Your task to perform on an android device: What's the weather going to be this weekend? Image 0: 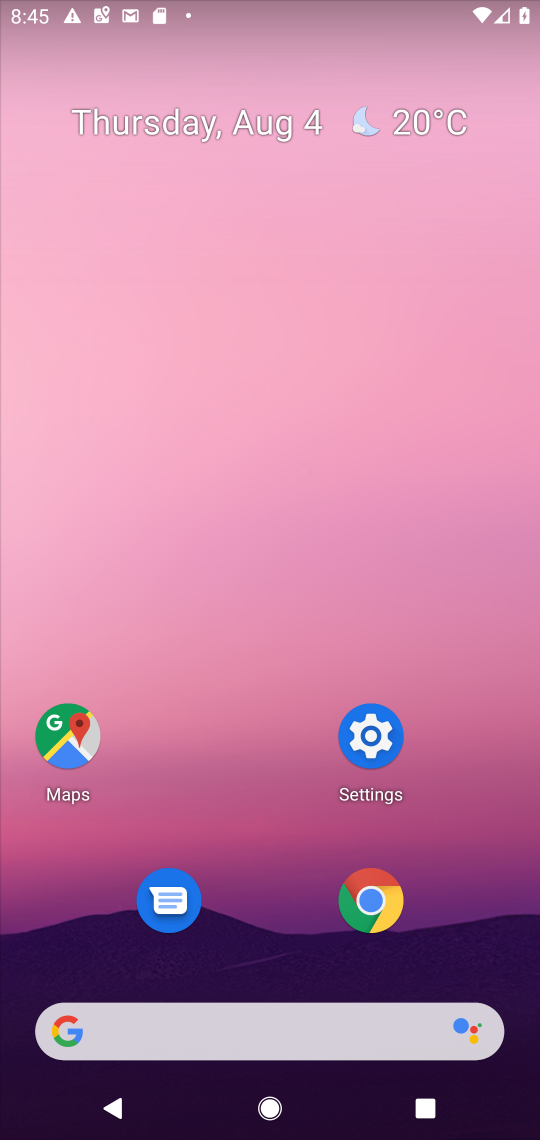
Step 0: press home button
Your task to perform on an android device: What's the weather going to be this weekend? Image 1: 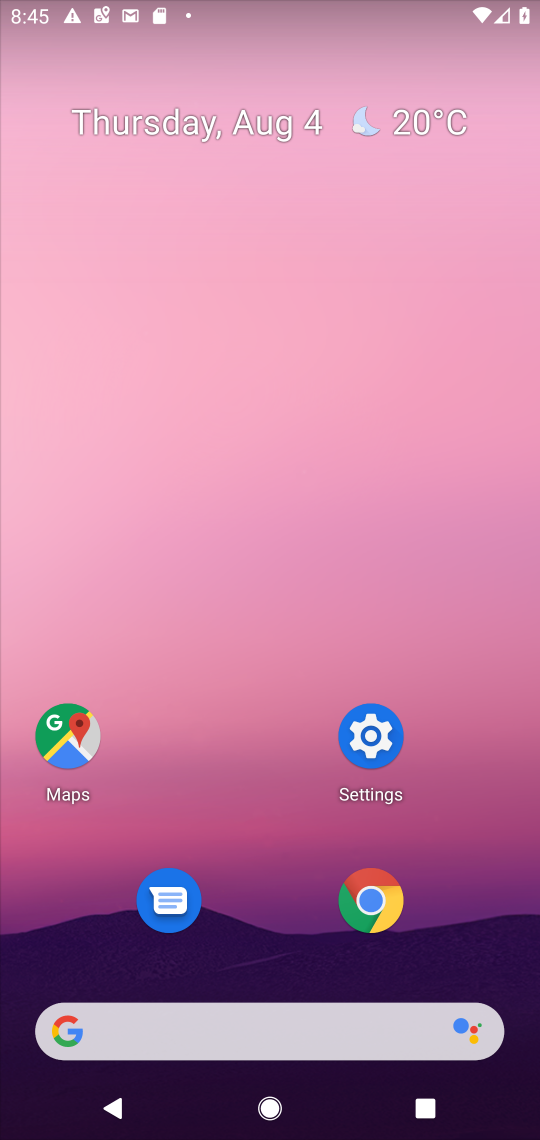
Step 1: click (179, 1028)
Your task to perform on an android device: What's the weather going to be this weekend? Image 2: 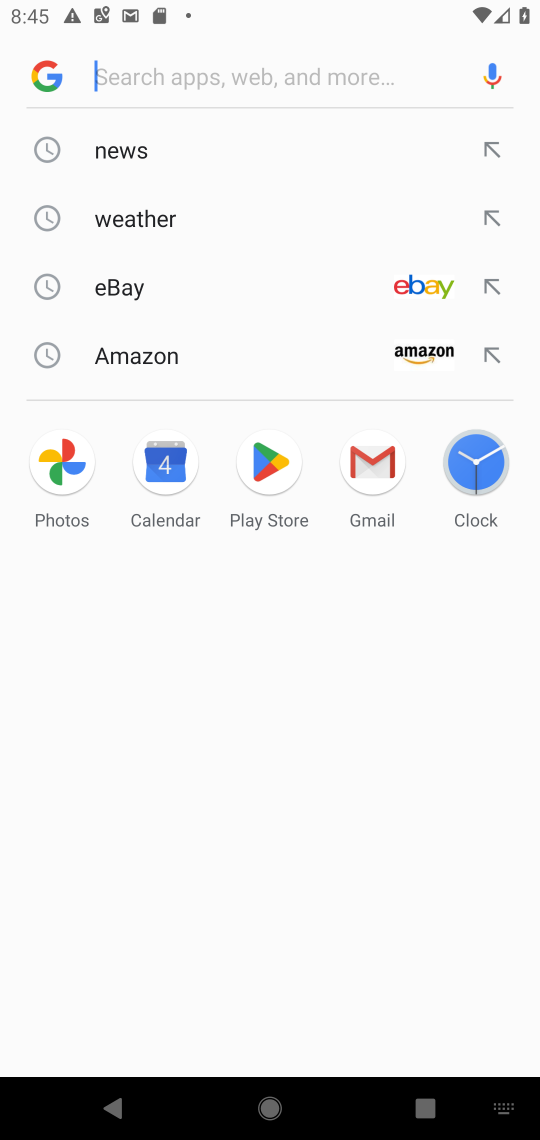
Step 2: click (172, 215)
Your task to perform on an android device: What's the weather going to be this weekend? Image 3: 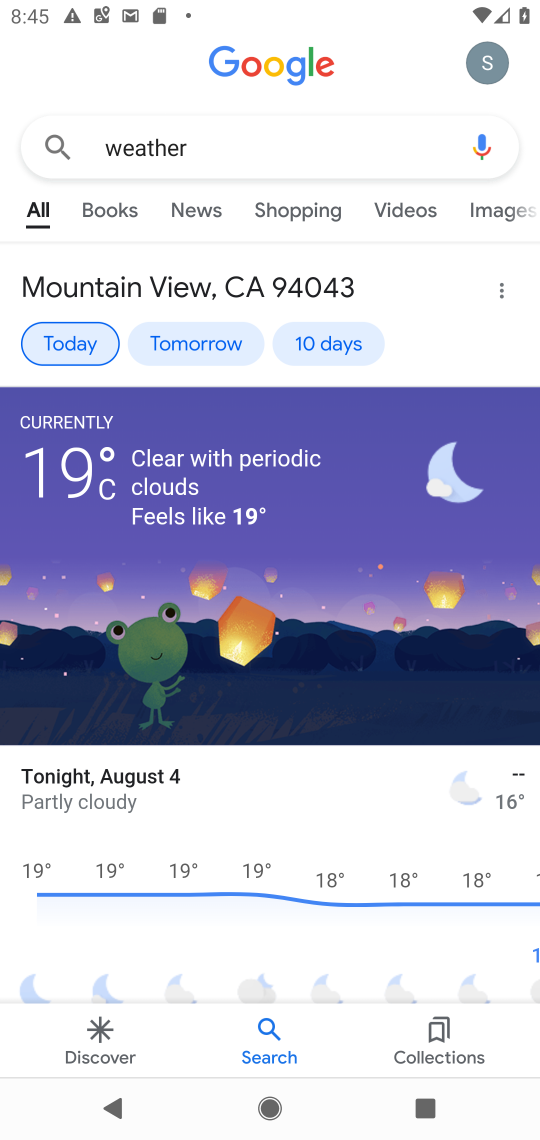
Step 3: click (360, 347)
Your task to perform on an android device: What's the weather going to be this weekend? Image 4: 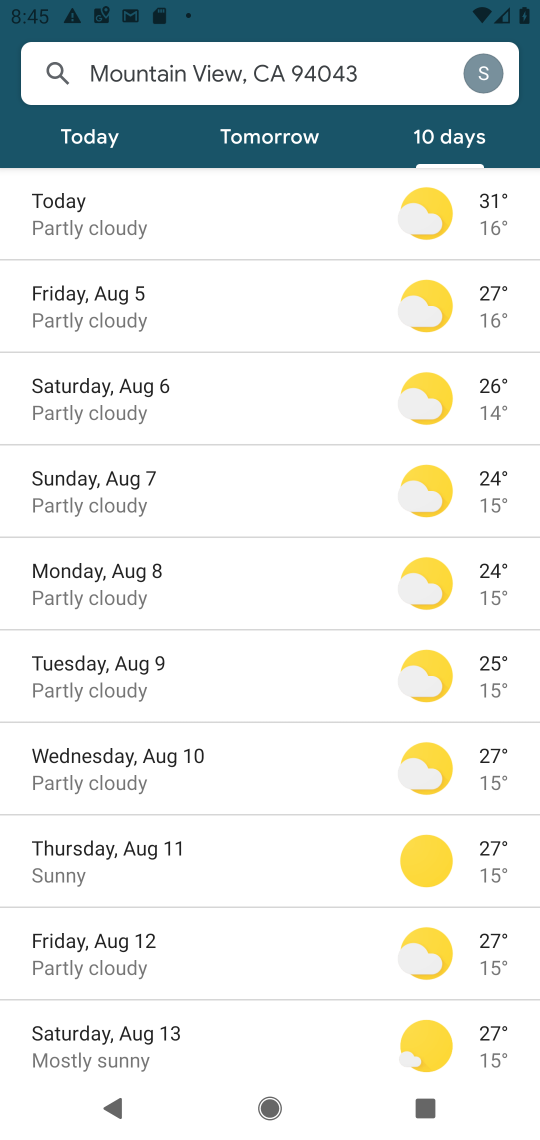
Step 4: click (124, 404)
Your task to perform on an android device: What's the weather going to be this weekend? Image 5: 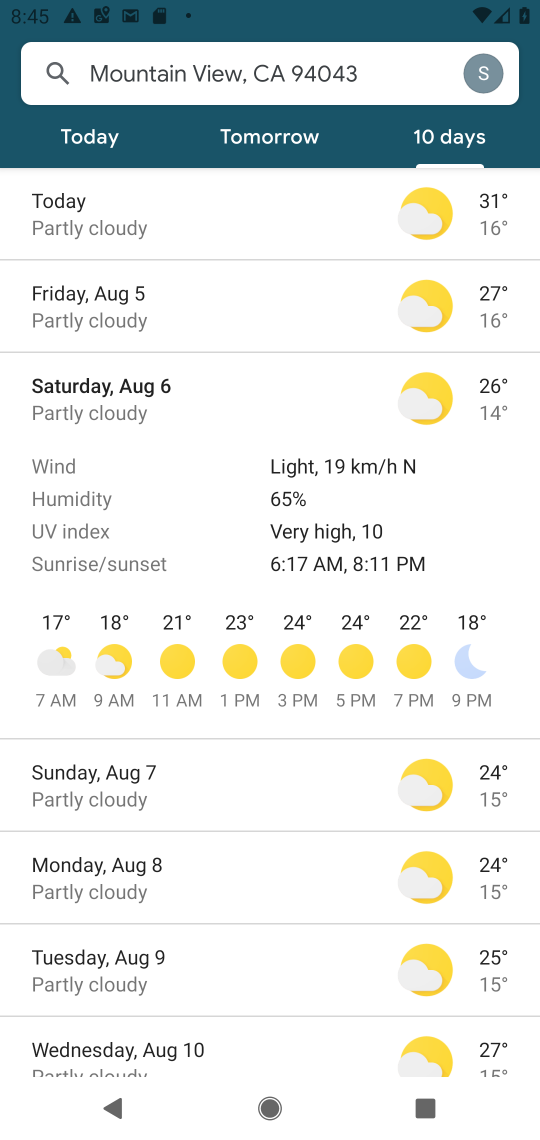
Step 5: task complete